Your task to perform on an android device: clear all cookies in the chrome app Image 0: 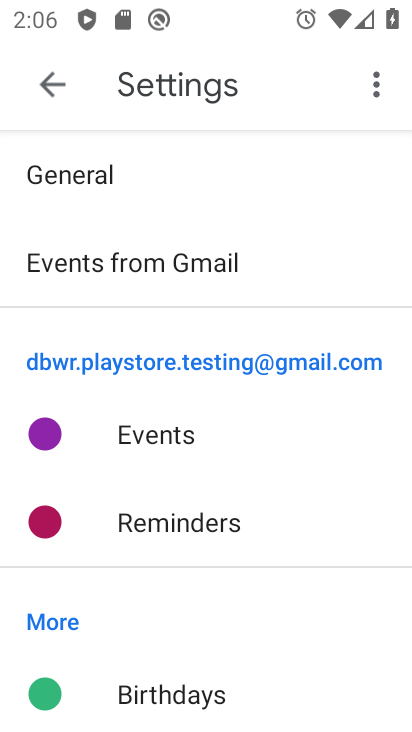
Step 0: press home button
Your task to perform on an android device: clear all cookies in the chrome app Image 1: 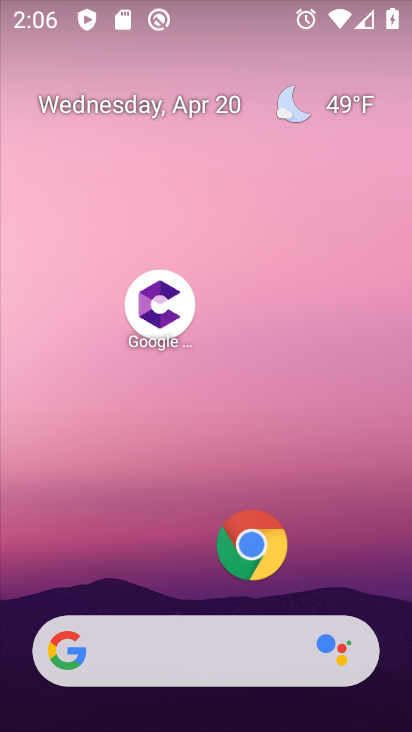
Step 1: drag from (183, 557) to (270, 114)
Your task to perform on an android device: clear all cookies in the chrome app Image 2: 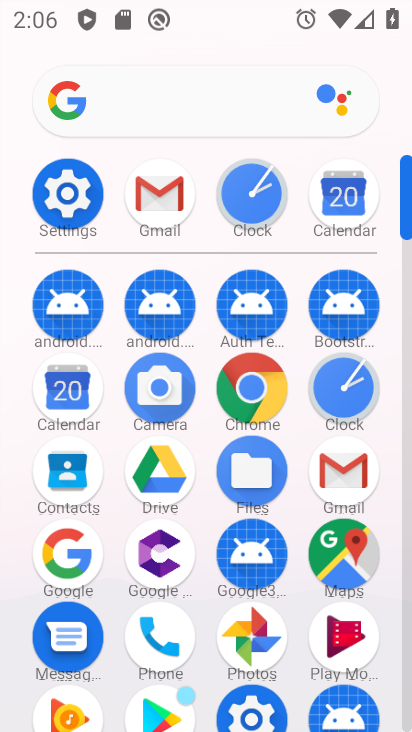
Step 2: click (253, 393)
Your task to perform on an android device: clear all cookies in the chrome app Image 3: 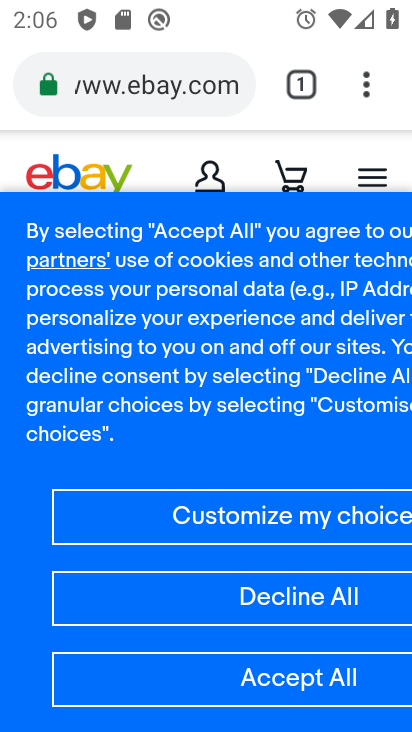
Step 3: click (366, 82)
Your task to perform on an android device: clear all cookies in the chrome app Image 4: 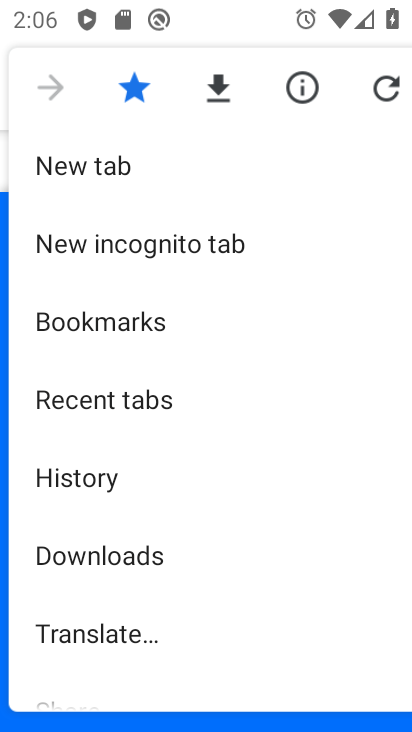
Step 4: drag from (164, 500) to (213, 369)
Your task to perform on an android device: clear all cookies in the chrome app Image 5: 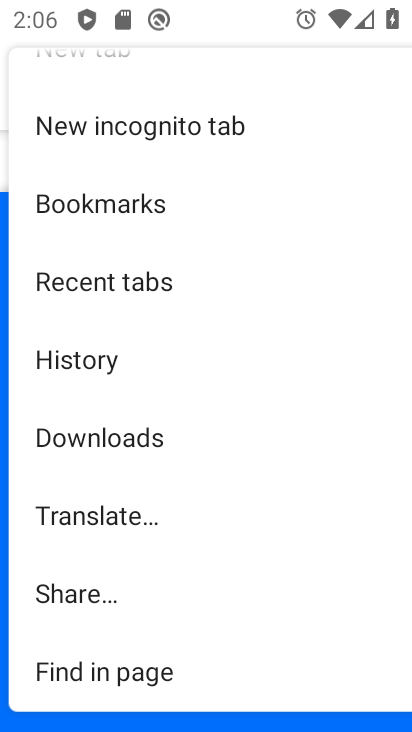
Step 5: drag from (152, 507) to (218, 414)
Your task to perform on an android device: clear all cookies in the chrome app Image 6: 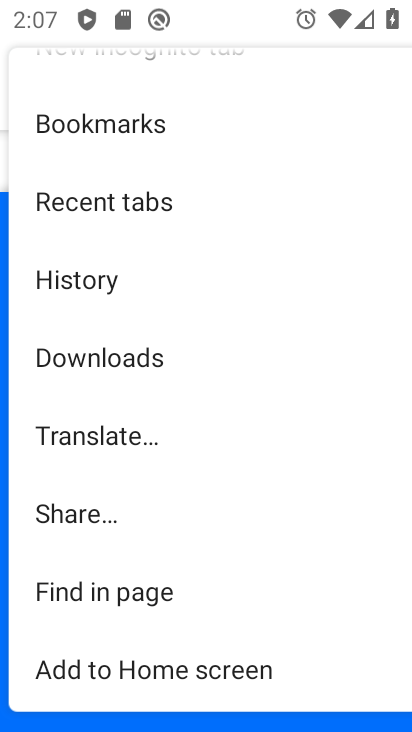
Step 6: drag from (151, 511) to (215, 386)
Your task to perform on an android device: clear all cookies in the chrome app Image 7: 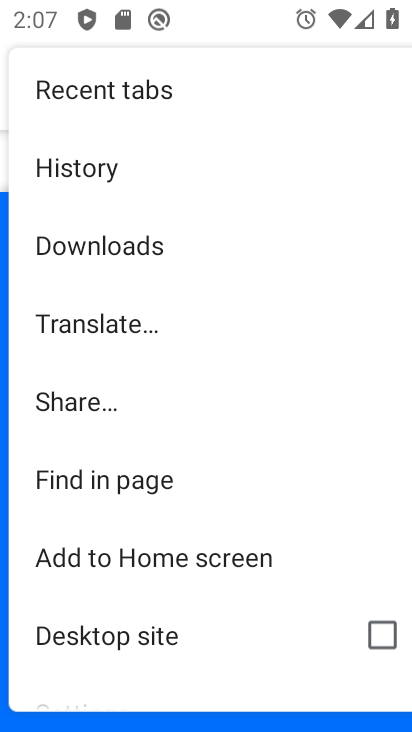
Step 7: drag from (165, 514) to (234, 372)
Your task to perform on an android device: clear all cookies in the chrome app Image 8: 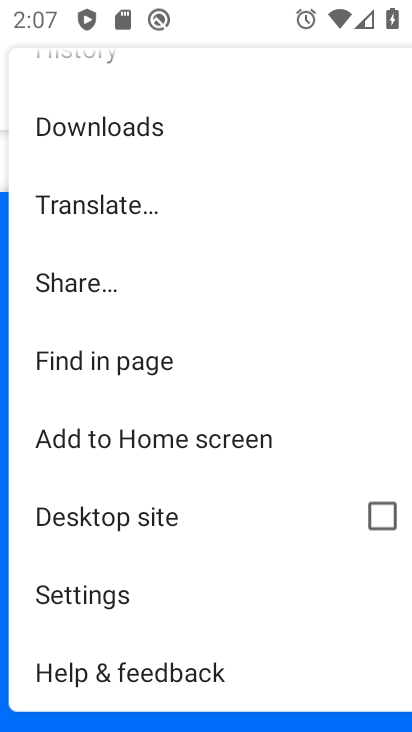
Step 8: drag from (153, 550) to (247, 401)
Your task to perform on an android device: clear all cookies in the chrome app Image 9: 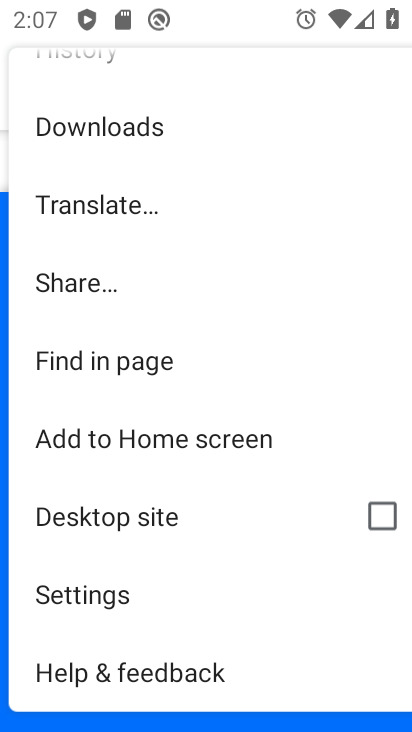
Step 9: click (108, 589)
Your task to perform on an android device: clear all cookies in the chrome app Image 10: 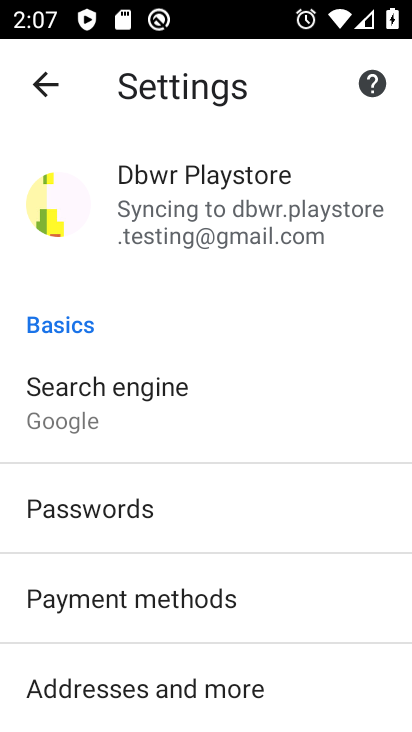
Step 10: drag from (139, 580) to (212, 371)
Your task to perform on an android device: clear all cookies in the chrome app Image 11: 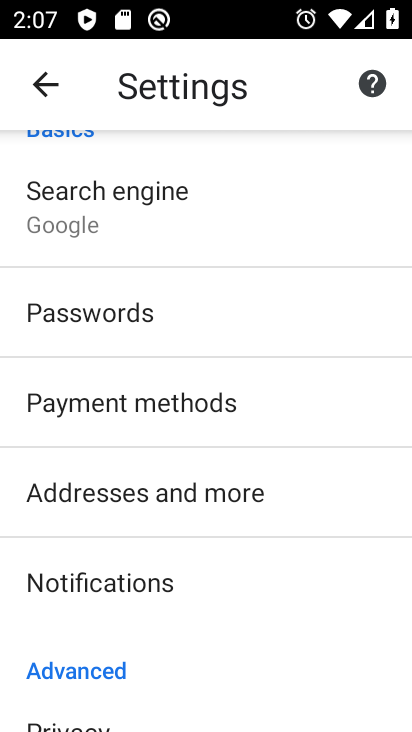
Step 11: drag from (172, 619) to (236, 508)
Your task to perform on an android device: clear all cookies in the chrome app Image 12: 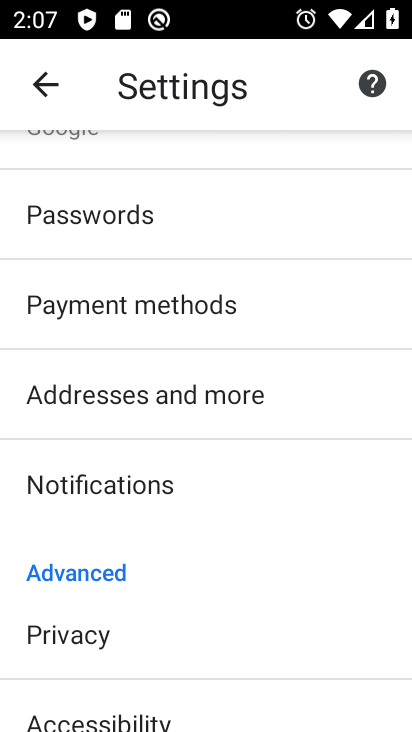
Step 12: drag from (168, 589) to (255, 434)
Your task to perform on an android device: clear all cookies in the chrome app Image 13: 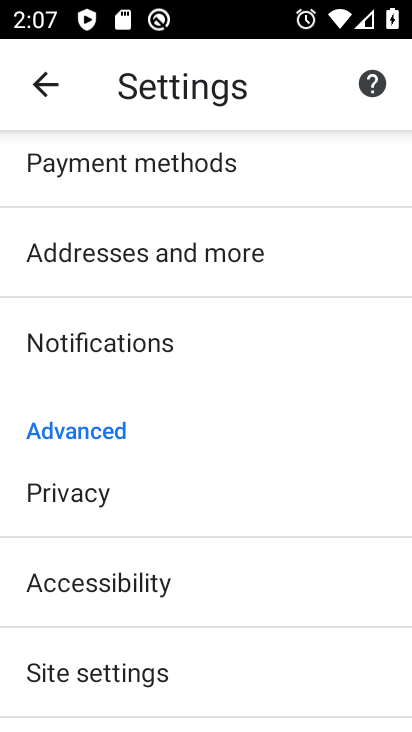
Step 13: drag from (201, 600) to (260, 482)
Your task to perform on an android device: clear all cookies in the chrome app Image 14: 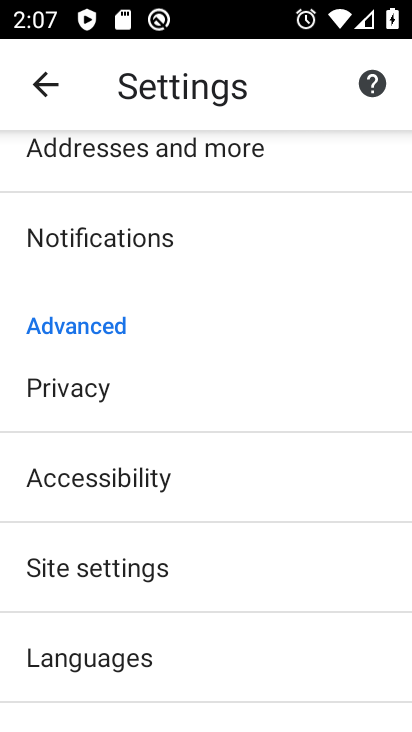
Step 14: click (93, 387)
Your task to perform on an android device: clear all cookies in the chrome app Image 15: 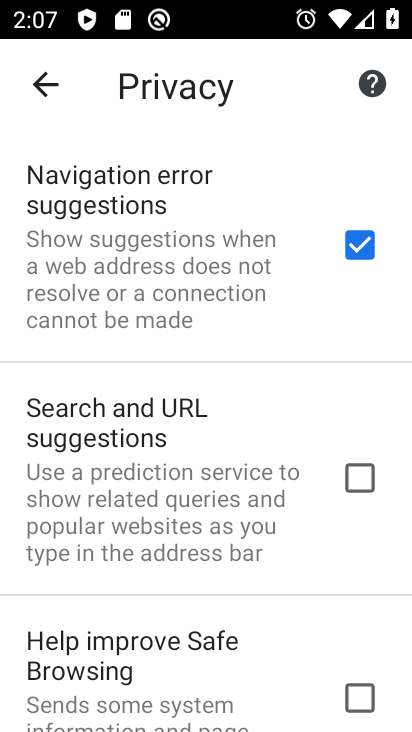
Step 15: drag from (175, 621) to (243, 446)
Your task to perform on an android device: clear all cookies in the chrome app Image 16: 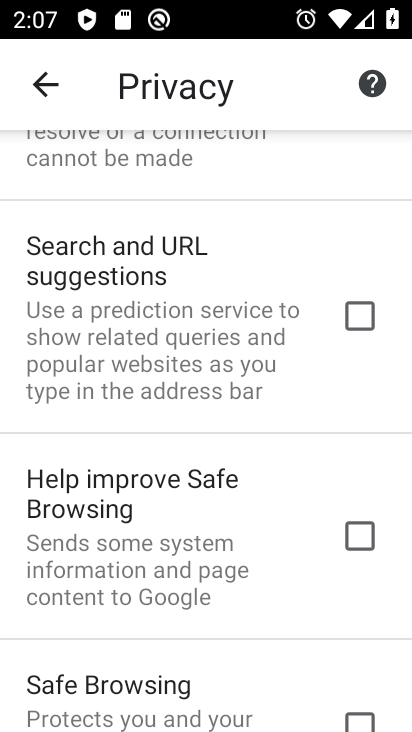
Step 16: drag from (183, 660) to (263, 518)
Your task to perform on an android device: clear all cookies in the chrome app Image 17: 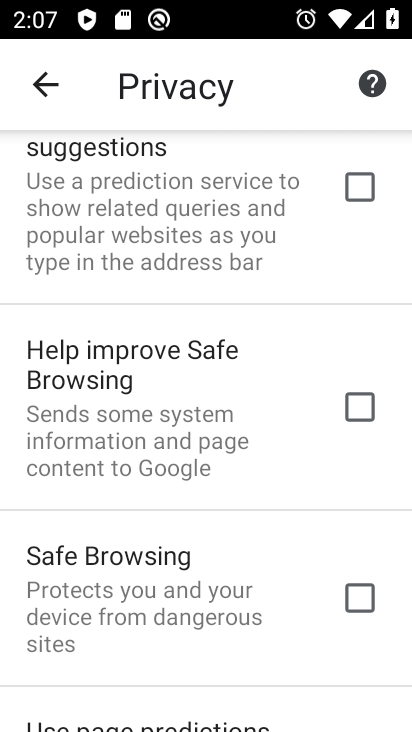
Step 17: drag from (207, 663) to (297, 462)
Your task to perform on an android device: clear all cookies in the chrome app Image 18: 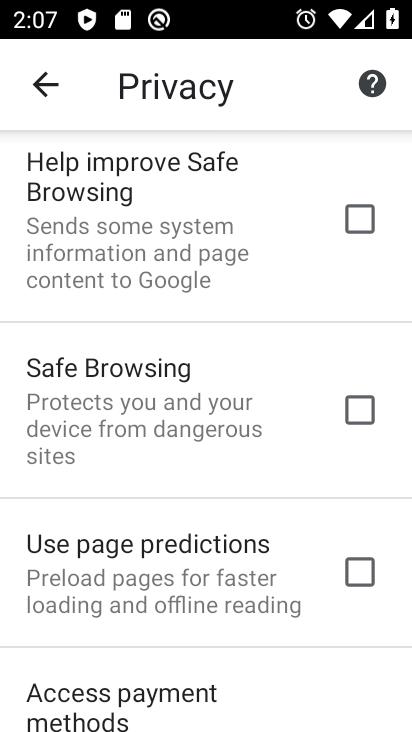
Step 18: drag from (222, 526) to (284, 367)
Your task to perform on an android device: clear all cookies in the chrome app Image 19: 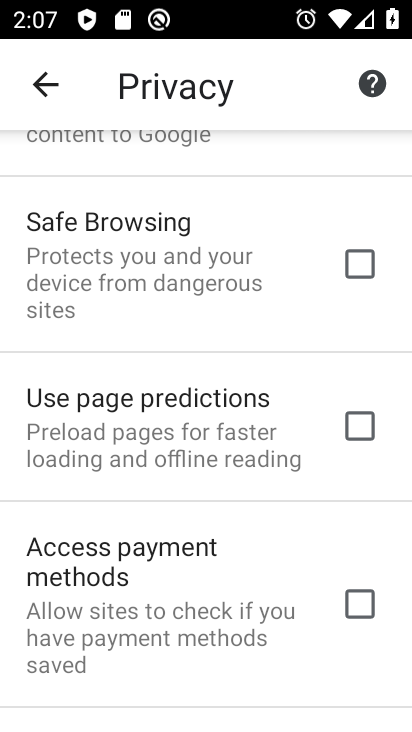
Step 19: drag from (176, 525) to (254, 342)
Your task to perform on an android device: clear all cookies in the chrome app Image 20: 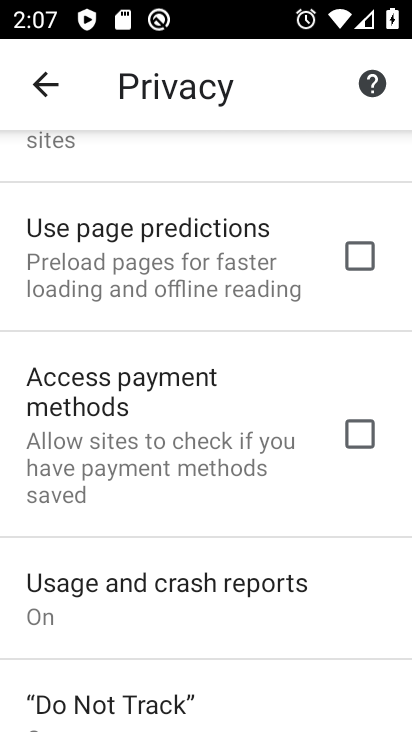
Step 20: drag from (186, 562) to (266, 402)
Your task to perform on an android device: clear all cookies in the chrome app Image 21: 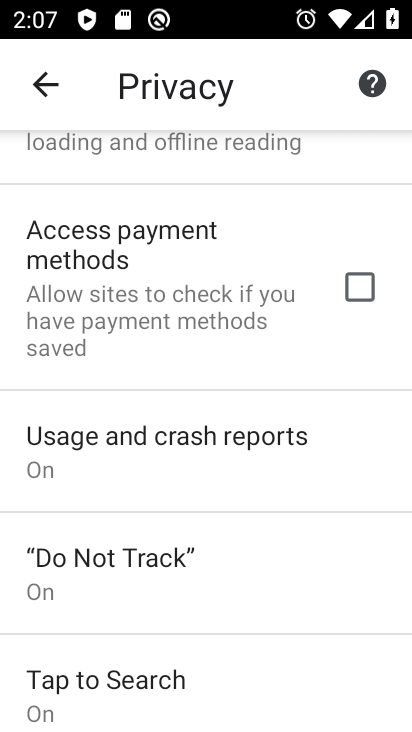
Step 21: drag from (230, 551) to (280, 351)
Your task to perform on an android device: clear all cookies in the chrome app Image 22: 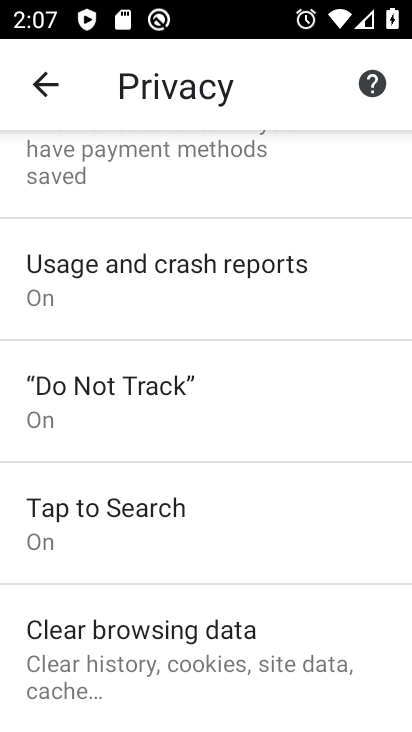
Step 22: drag from (243, 503) to (289, 383)
Your task to perform on an android device: clear all cookies in the chrome app Image 23: 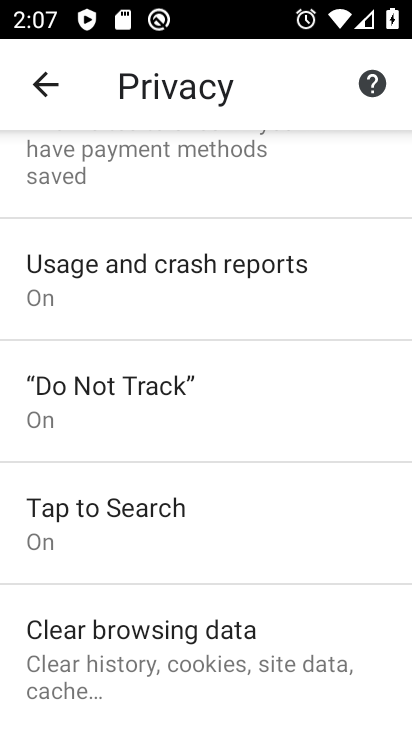
Step 23: click (174, 635)
Your task to perform on an android device: clear all cookies in the chrome app Image 24: 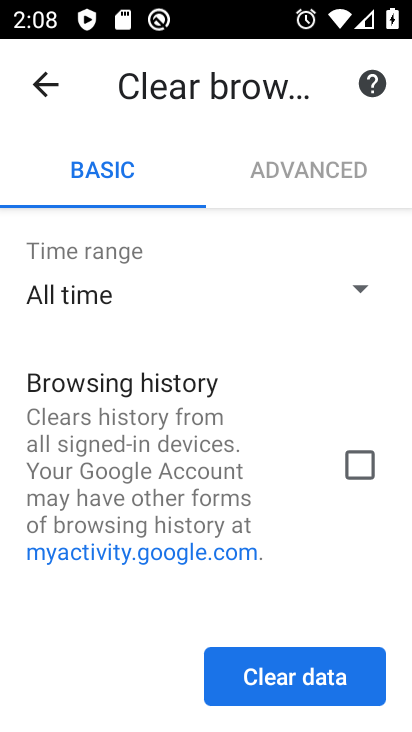
Step 24: drag from (170, 589) to (259, 338)
Your task to perform on an android device: clear all cookies in the chrome app Image 25: 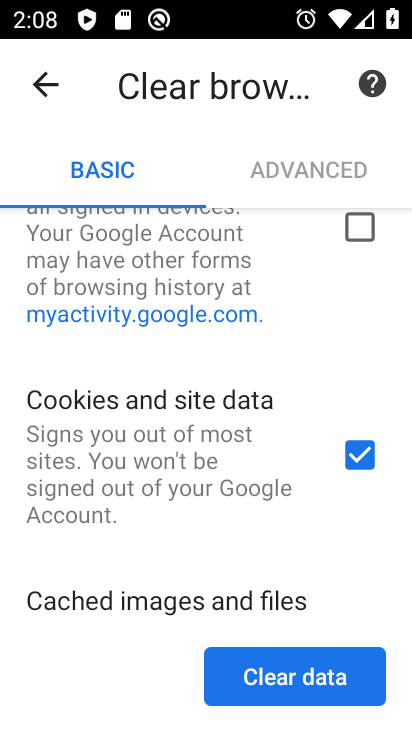
Step 25: drag from (179, 526) to (246, 395)
Your task to perform on an android device: clear all cookies in the chrome app Image 26: 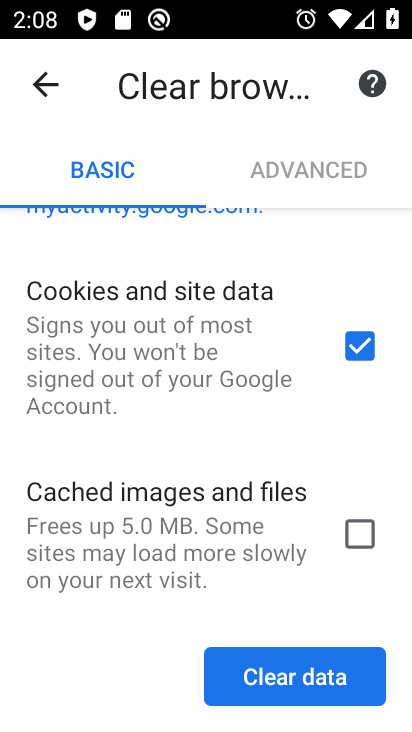
Step 26: drag from (211, 424) to (238, 366)
Your task to perform on an android device: clear all cookies in the chrome app Image 27: 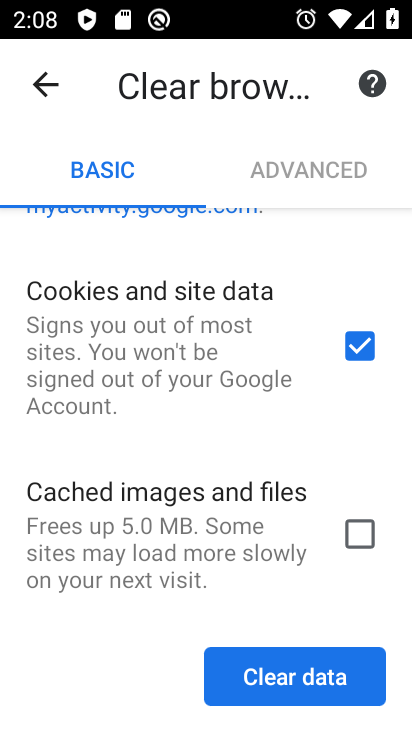
Step 27: drag from (243, 309) to (307, 570)
Your task to perform on an android device: clear all cookies in the chrome app Image 28: 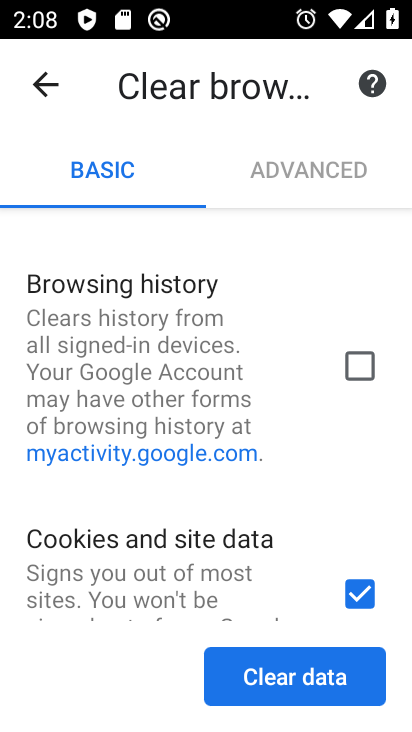
Step 28: drag from (229, 306) to (253, 539)
Your task to perform on an android device: clear all cookies in the chrome app Image 29: 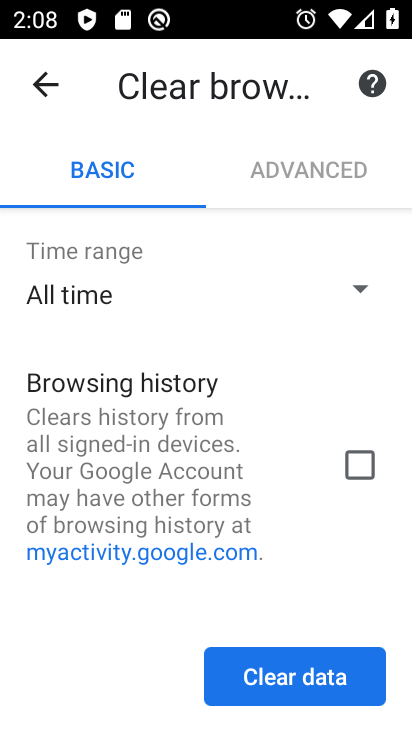
Step 29: drag from (288, 562) to (345, 335)
Your task to perform on an android device: clear all cookies in the chrome app Image 30: 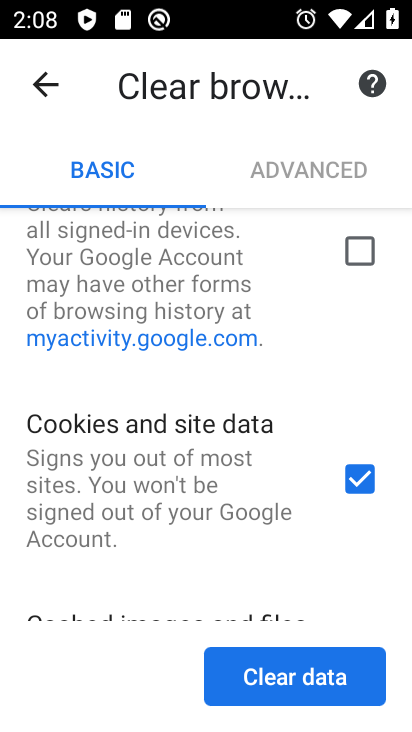
Step 30: click (327, 683)
Your task to perform on an android device: clear all cookies in the chrome app Image 31: 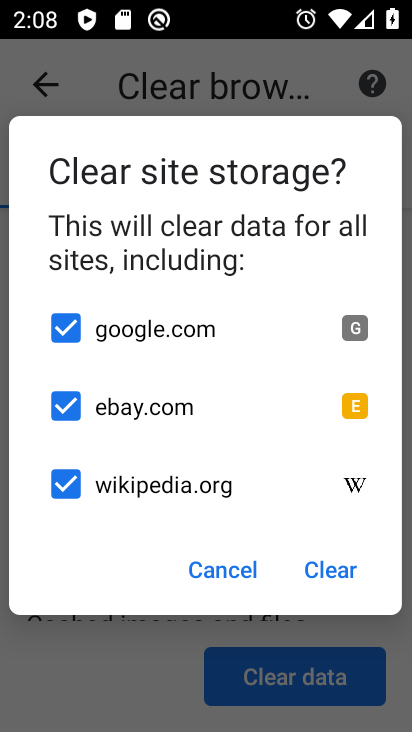
Step 31: click (330, 567)
Your task to perform on an android device: clear all cookies in the chrome app Image 32: 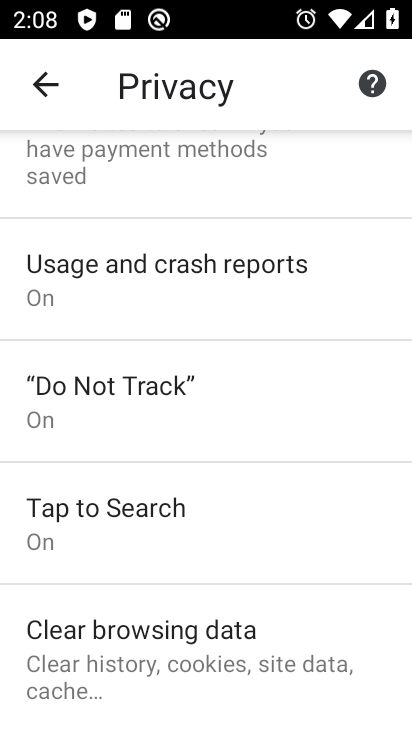
Step 32: task complete